Your task to perform on an android device: turn vacation reply on in the gmail app Image 0: 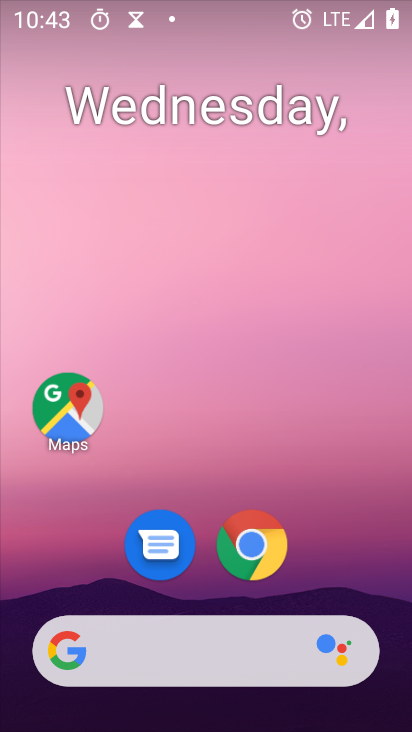
Step 0: press home button
Your task to perform on an android device: turn vacation reply on in the gmail app Image 1: 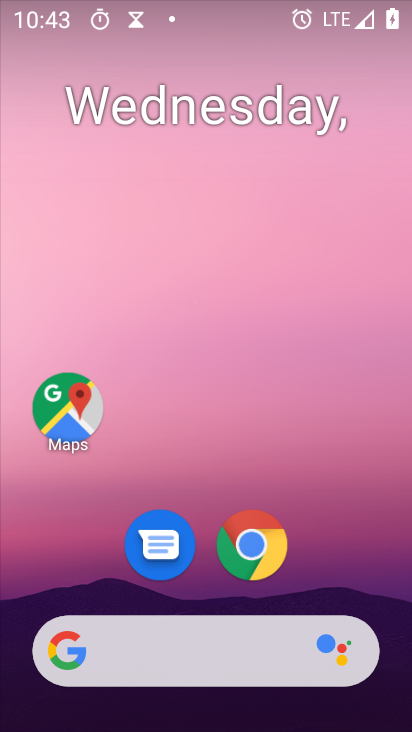
Step 1: drag from (158, 636) to (290, 45)
Your task to perform on an android device: turn vacation reply on in the gmail app Image 2: 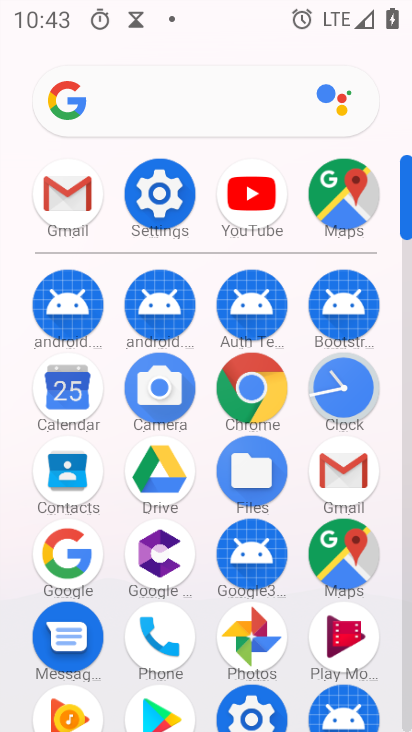
Step 2: click (65, 207)
Your task to perform on an android device: turn vacation reply on in the gmail app Image 3: 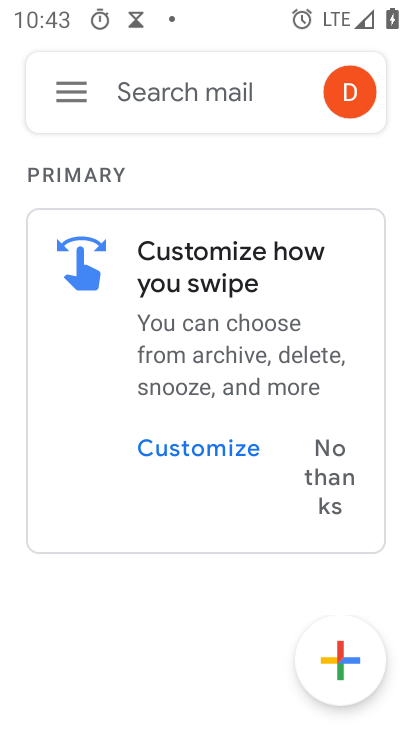
Step 3: click (67, 99)
Your task to perform on an android device: turn vacation reply on in the gmail app Image 4: 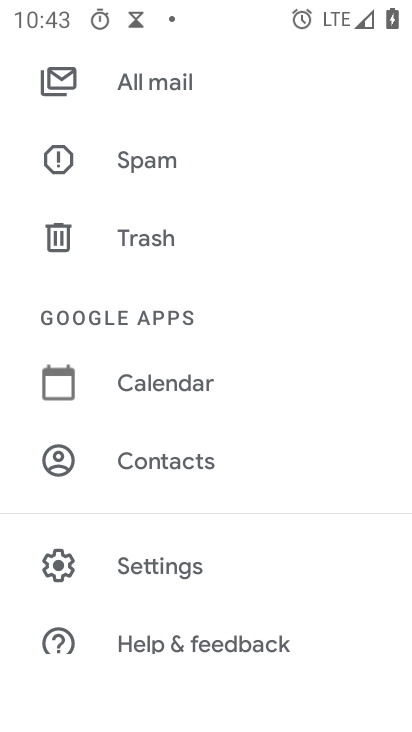
Step 4: drag from (202, 645) to (262, 353)
Your task to perform on an android device: turn vacation reply on in the gmail app Image 5: 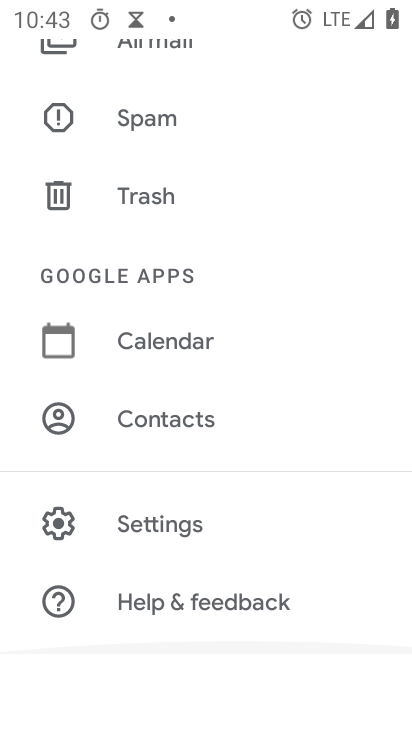
Step 5: click (151, 531)
Your task to perform on an android device: turn vacation reply on in the gmail app Image 6: 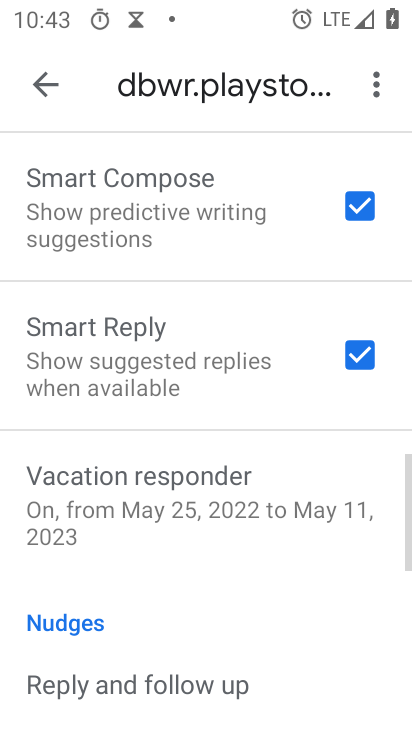
Step 6: click (161, 497)
Your task to perform on an android device: turn vacation reply on in the gmail app Image 7: 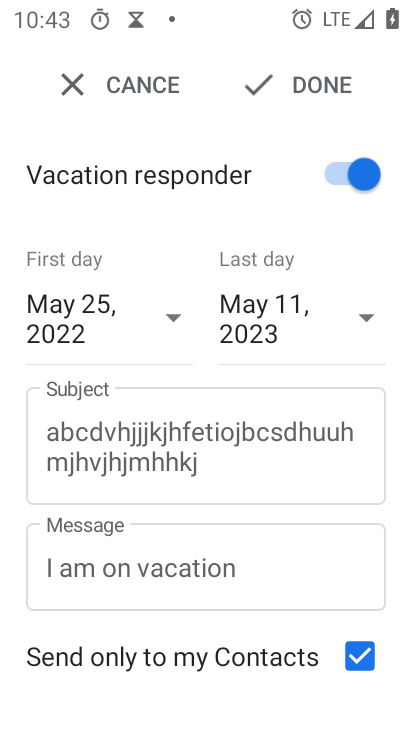
Step 7: task complete